Your task to perform on an android device: change your default location settings in chrome Image 0: 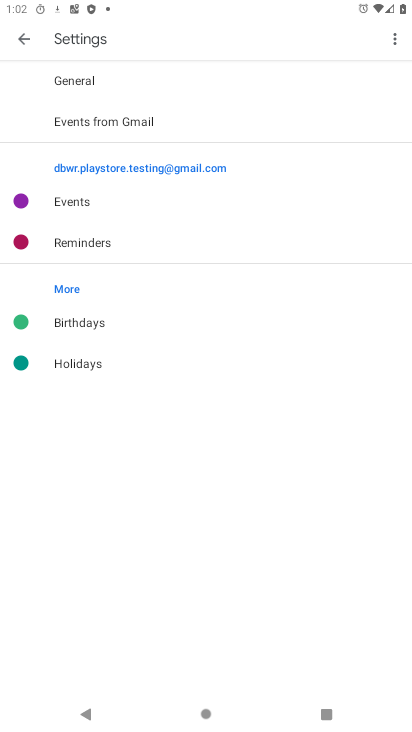
Step 0: press home button
Your task to perform on an android device: change your default location settings in chrome Image 1: 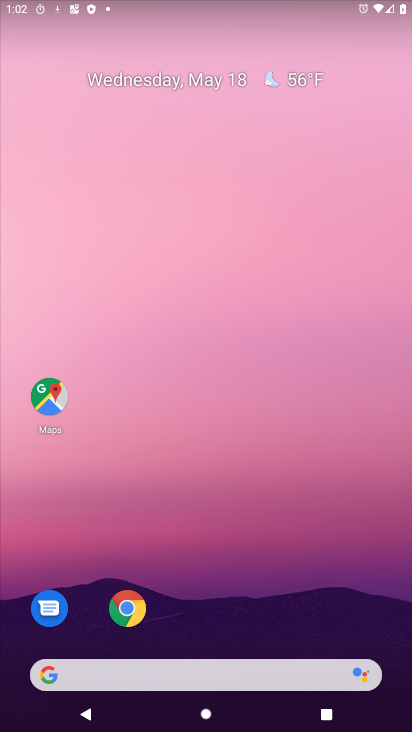
Step 1: drag from (279, 680) to (377, 142)
Your task to perform on an android device: change your default location settings in chrome Image 2: 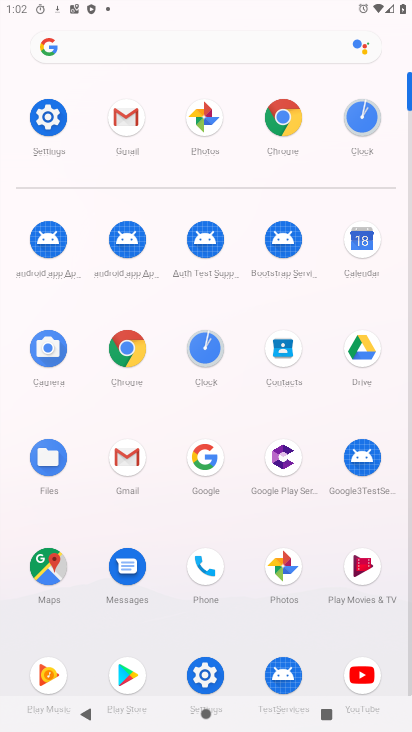
Step 2: click (123, 346)
Your task to perform on an android device: change your default location settings in chrome Image 3: 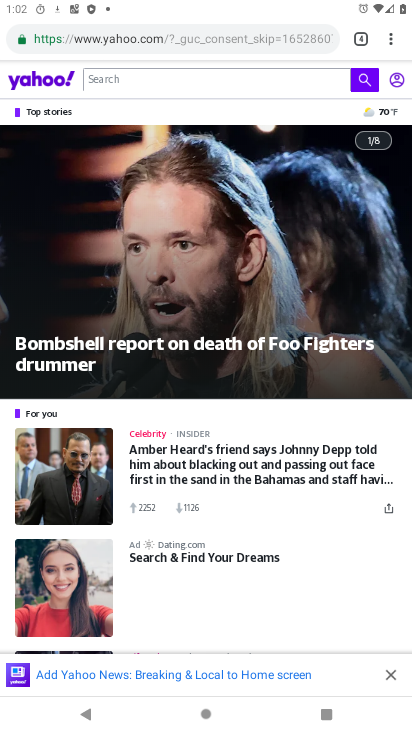
Step 3: click (387, 47)
Your task to perform on an android device: change your default location settings in chrome Image 4: 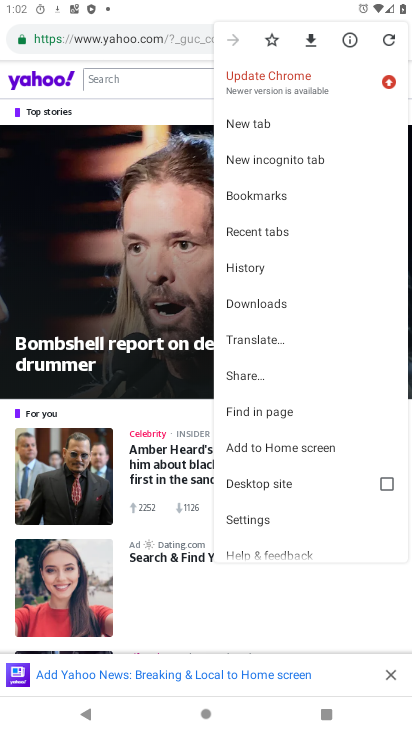
Step 4: click (240, 514)
Your task to perform on an android device: change your default location settings in chrome Image 5: 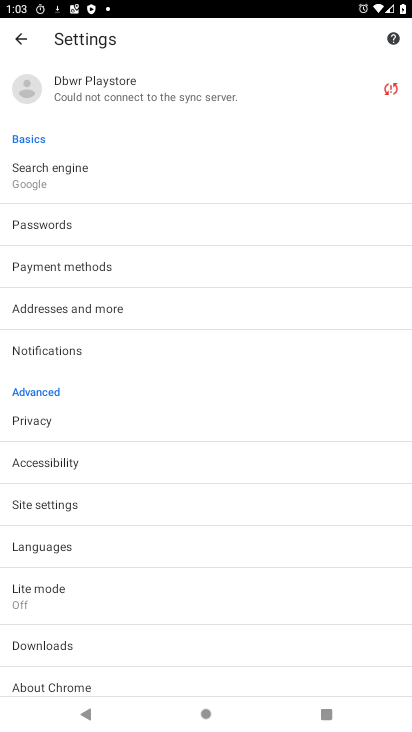
Step 5: click (59, 503)
Your task to perform on an android device: change your default location settings in chrome Image 6: 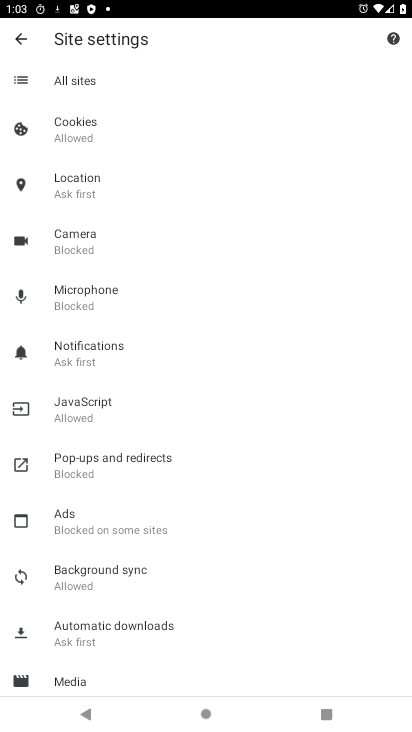
Step 6: click (96, 186)
Your task to perform on an android device: change your default location settings in chrome Image 7: 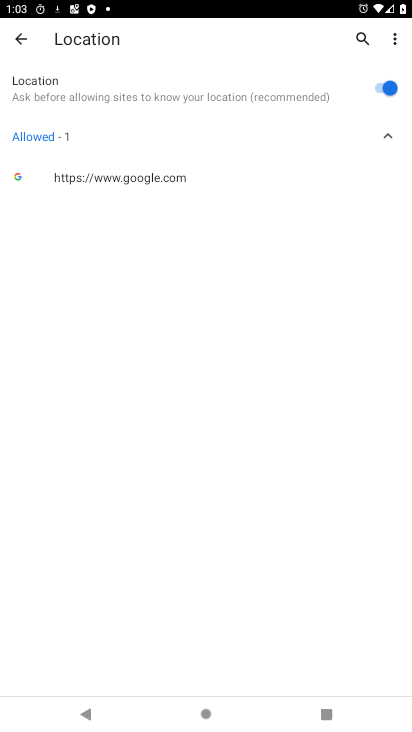
Step 7: task complete